Your task to perform on an android device: refresh tabs in the chrome app Image 0: 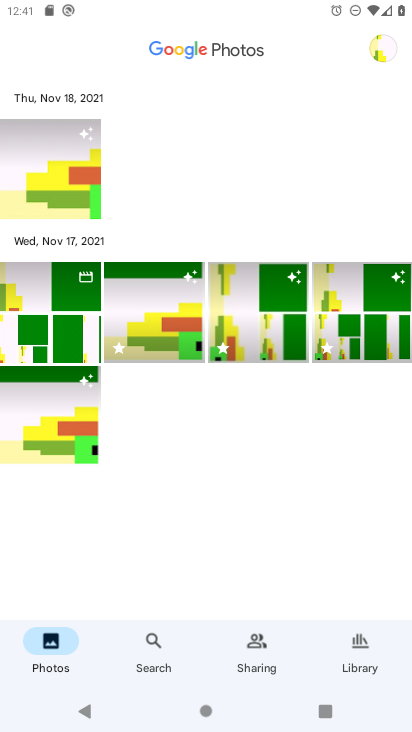
Step 0: press home button
Your task to perform on an android device: refresh tabs in the chrome app Image 1: 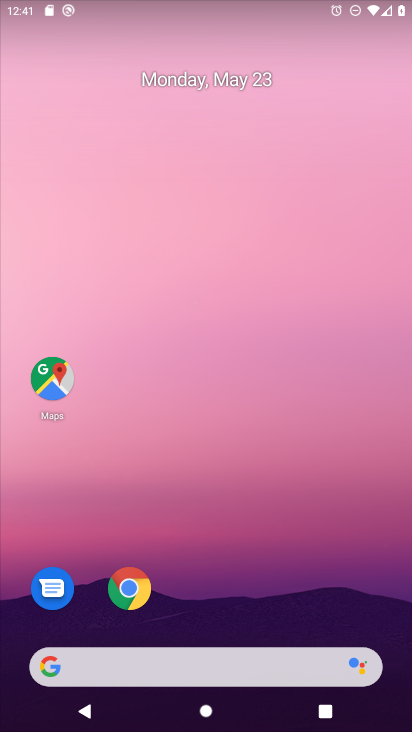
Step 1: drag from (289, 649) to (237, 192)
Your task to perform on an android device: refresh tabs in the chrome app Image 2: 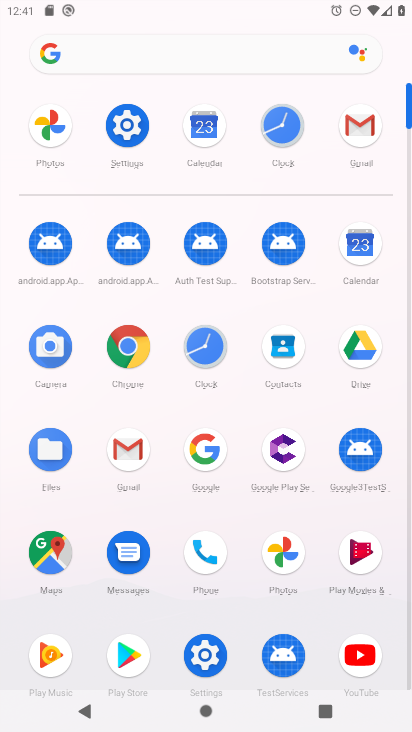
Step 2: click (133, 355)
Your task to perform on an android device: refresh tabs in the chrome app Image 3: 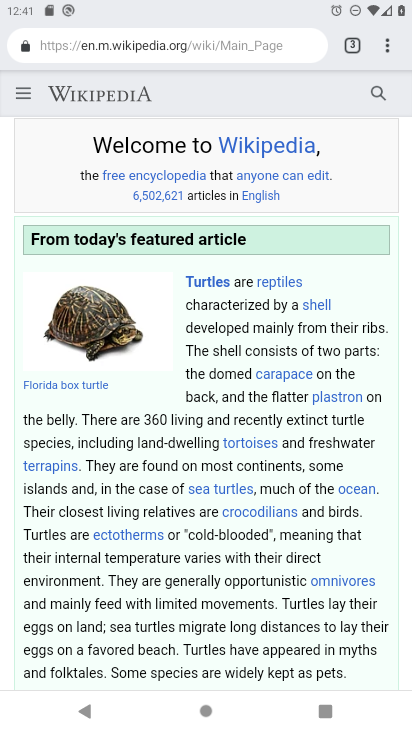
Step 3: click (388, 49)
Your task to perform on an android device: refresh tabs in the chrome app Image 4: 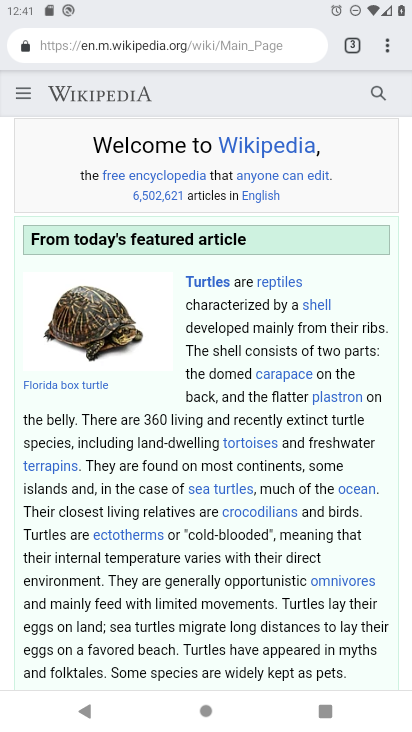
Step 4: click (387, 45)
Your task to perform on an android device: refresh tabs in the chrome app Image 5: 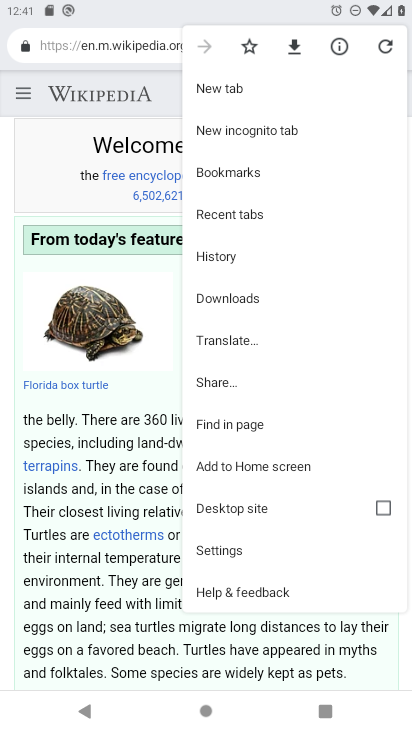
Step 5: click (385, 43)
Your task to perform on an android device: refresh tabs in the chrome app Image 6: 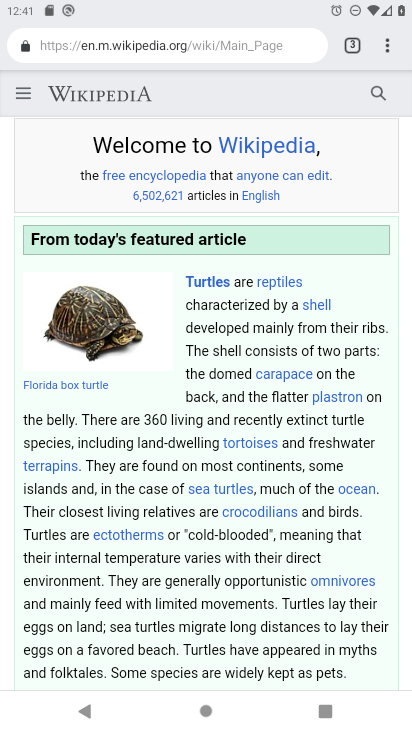
Step 6: task complete